Your task to perform on an android device: change notifications settings Image 0: 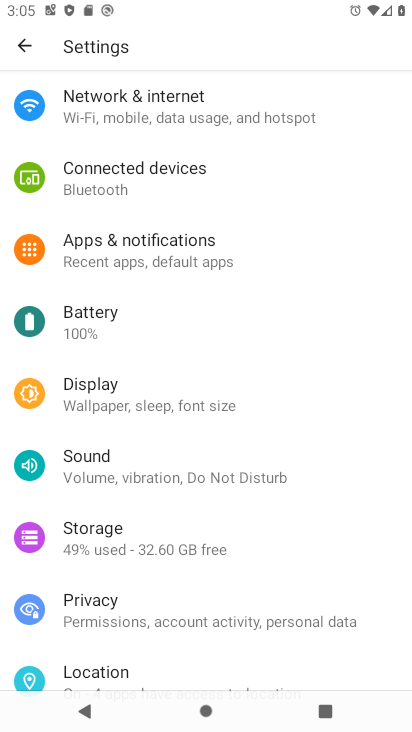
Step 0: click (190, 240)
Your task to perform on an android device: change notifications settings Image 1: 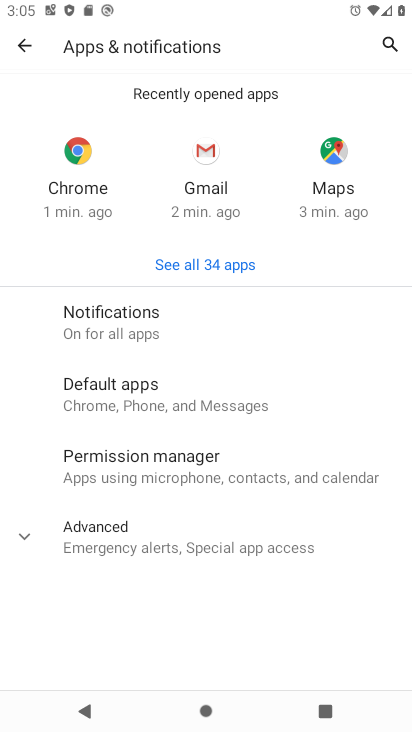
Step 1: click (18, 545)
Your task to perform on an android device: change notifications settings Image 2: 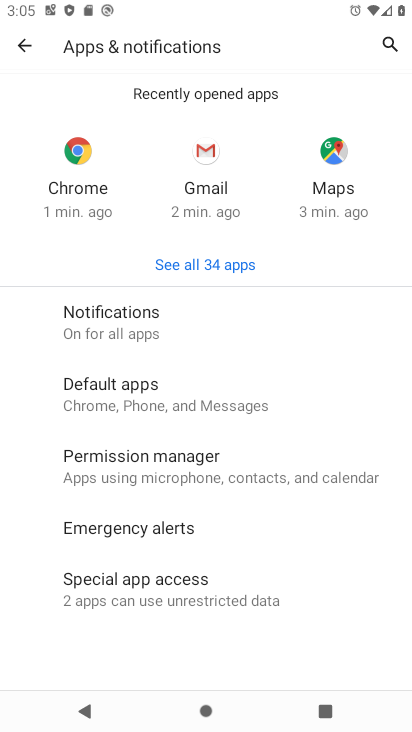
Step 2: drag from (229, 611) to (234, 293)
Your task to perform on an android device: change notifications settings Image 3: 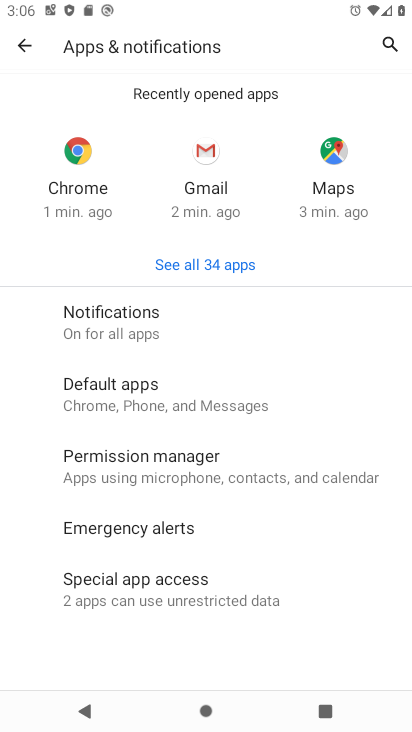
Step 3: click (191, 320)
Your task to perform on an android device: change notifications settings Image 4: 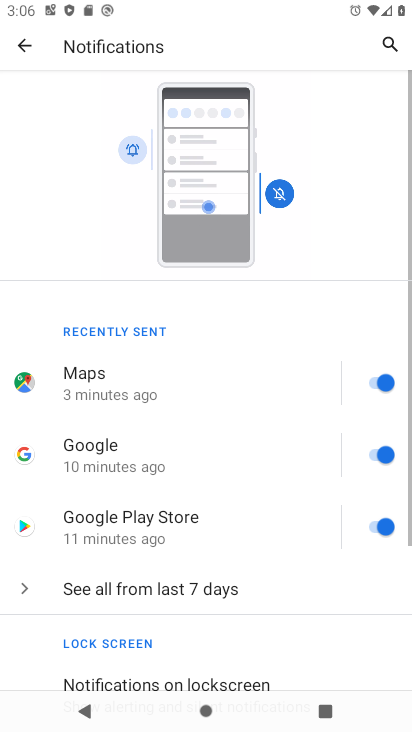
Step 4: drag from (214, 585) to (201, 174)
Your task to perform on an android device: change notifications settings Image 5: 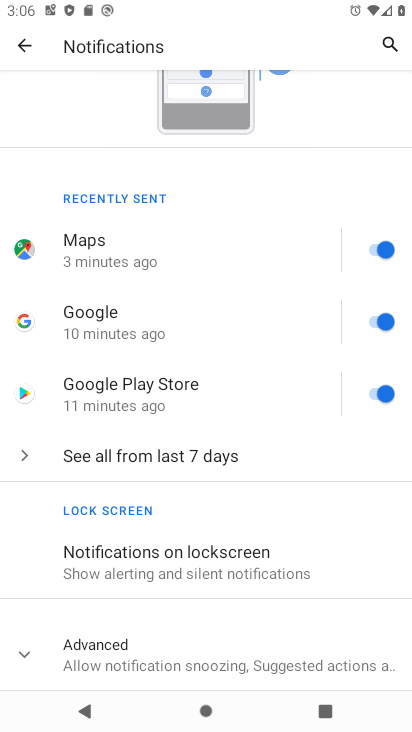
Step 5: click (13, 647)
Your task to perform on an android device: change notifications settings Image 6: 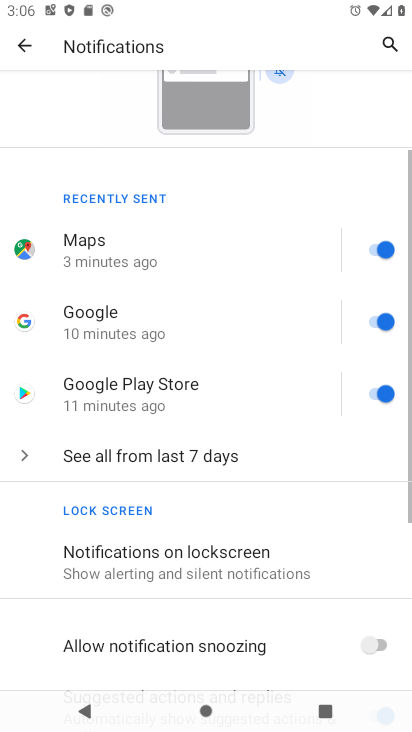
Step 6: task complete